Your task to perform on an android device: uninstall "Messenger Lite" Image 0: 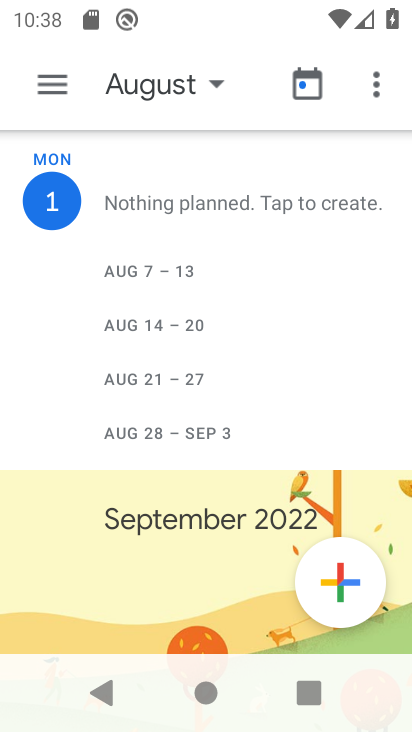
Step 0: press home button
Your task to perform on an android device: uninstall "Messenger Lite" Image 1: 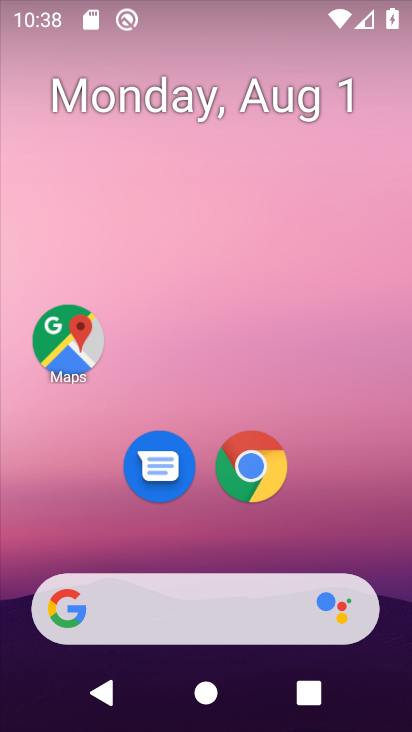
Step 1: drag from (233, 699) to (233, 94)
Your task to perform on an android device: uninstall "Messenger Lite" Image 2: 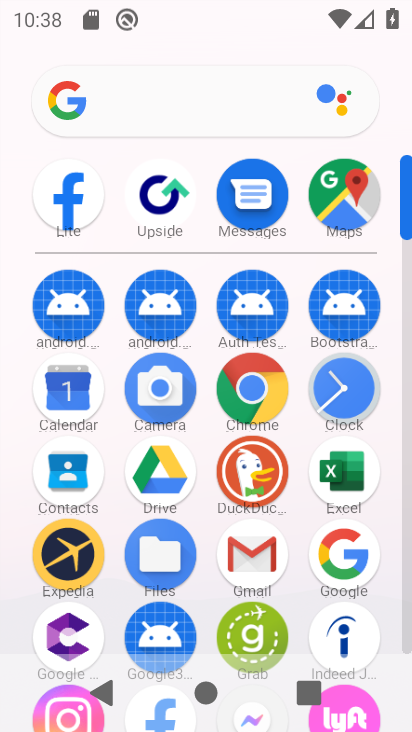
Step 2: drag from (198, 615) to (192, 349)
Your task to perform on an android device: uninstall "Messenger Lite" Image 3: 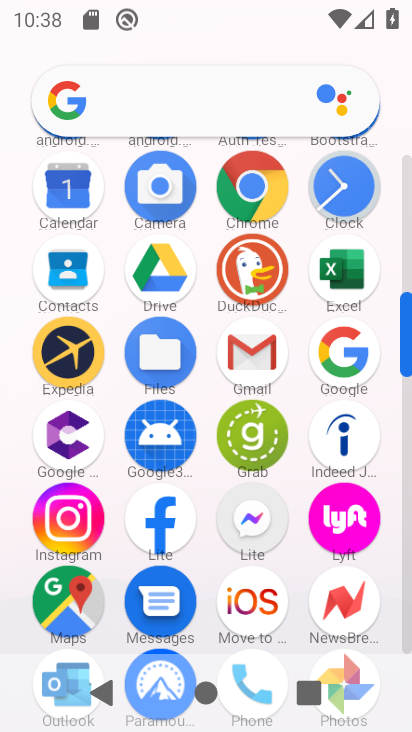
Step 3: drag from (204, 576) to (187, 320)
Your task to perform on an android device: uninstall "Messenger Lite" Image 4: 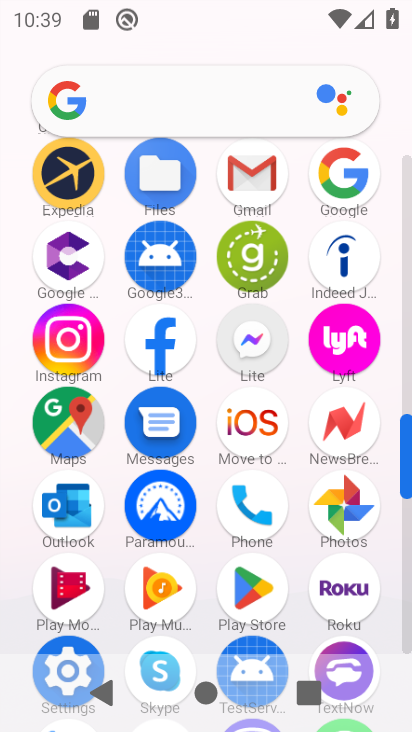
Step 4: click (257, 592)
Your task to perform on an android device: uninstall "Messenger Lite" Image 5: 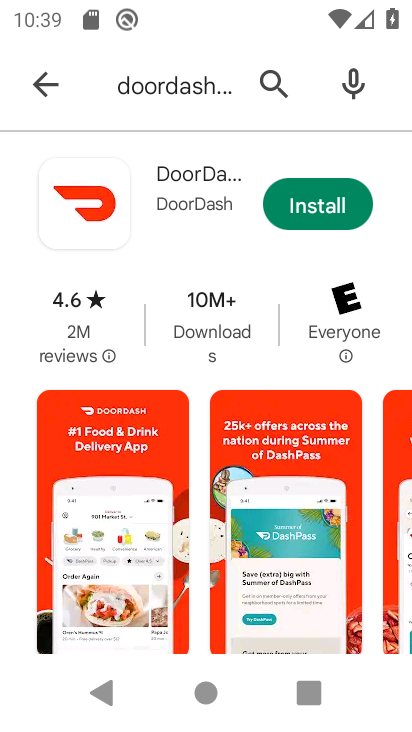
Step 5: click (269, 77)
Your task to perform on an android device: uninstall "Messenger Lite" Image 6: 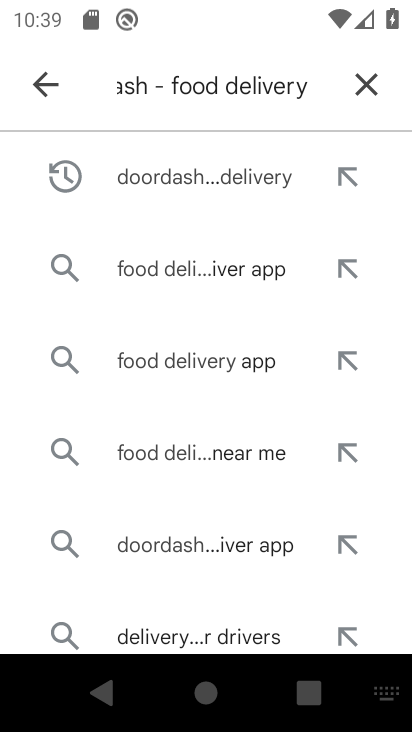
Step 6: click (361, 78)
Your task to perform on an android device: uninstall "Messenger Lite" Image 7: 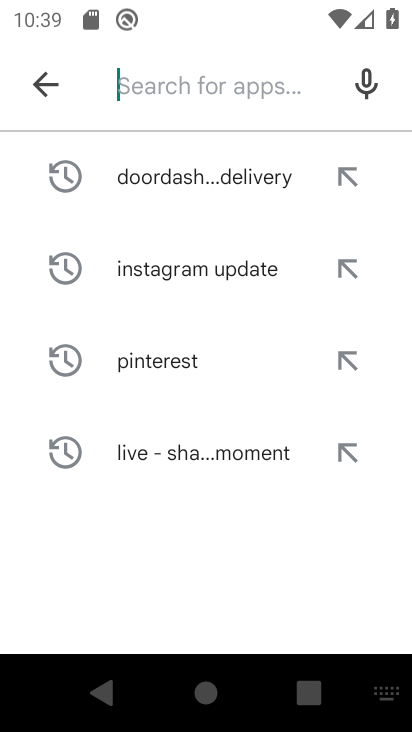
Step 7: type "Messenger Lite"
Your task to perform on an android device: uninstall "Messenger Lite" Image 8: 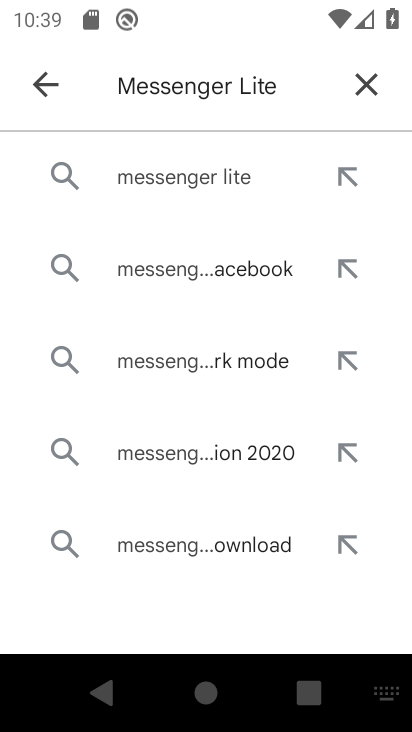
Step 8: click (194, 172)
Your task to perform on an android device: uninstall "Messenger Lite" Image 9: 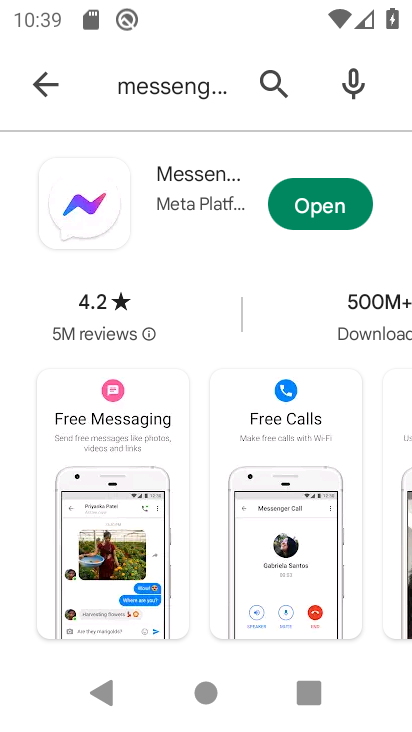
Step 9: click (187, 191)
Your task to perform on an android device: uninstall "Messenger Lite" Image 10: 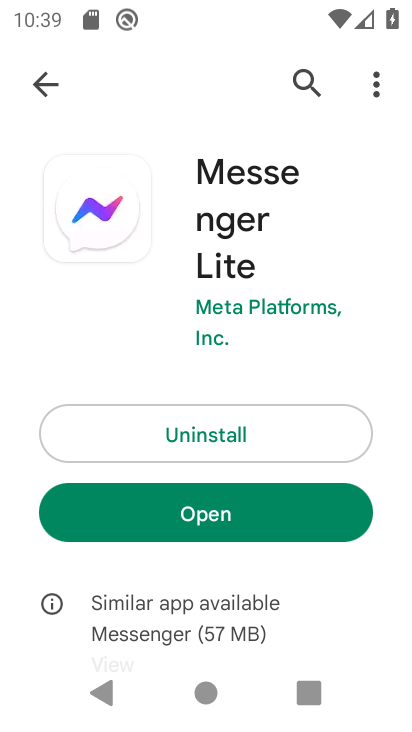
Step 10: click (204, 427)
Your task to perform on an android device: uninstall "Messenger Lite" Image 11: 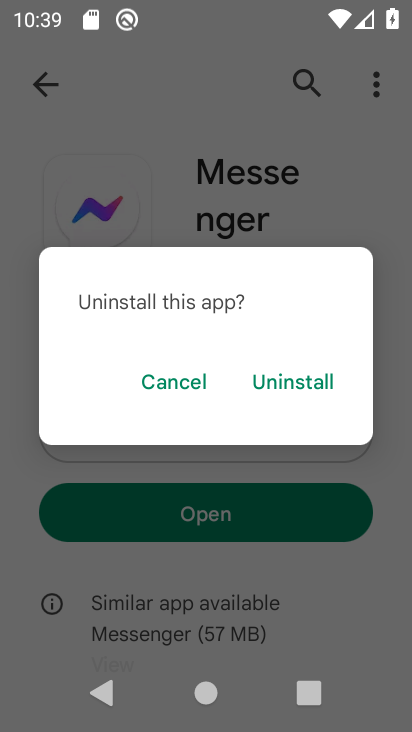
Step 11: click (296, 377)
Your task to perform on an android device: uninstall "Messenger Lite" Image 12: 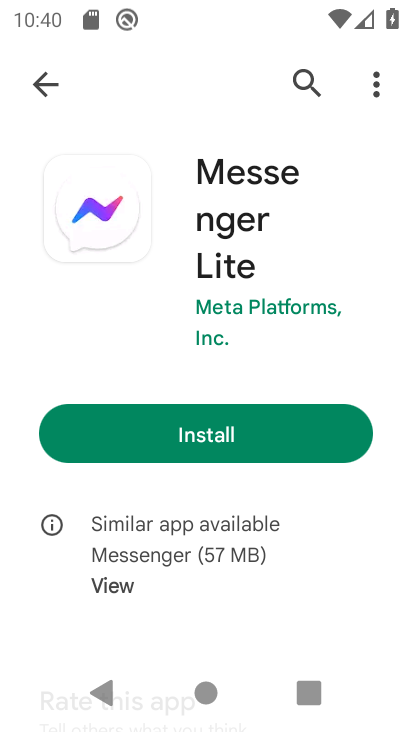
Step 12: task complete